Your task to perform on an android device: toggle javascript in the chrome app Image 0: 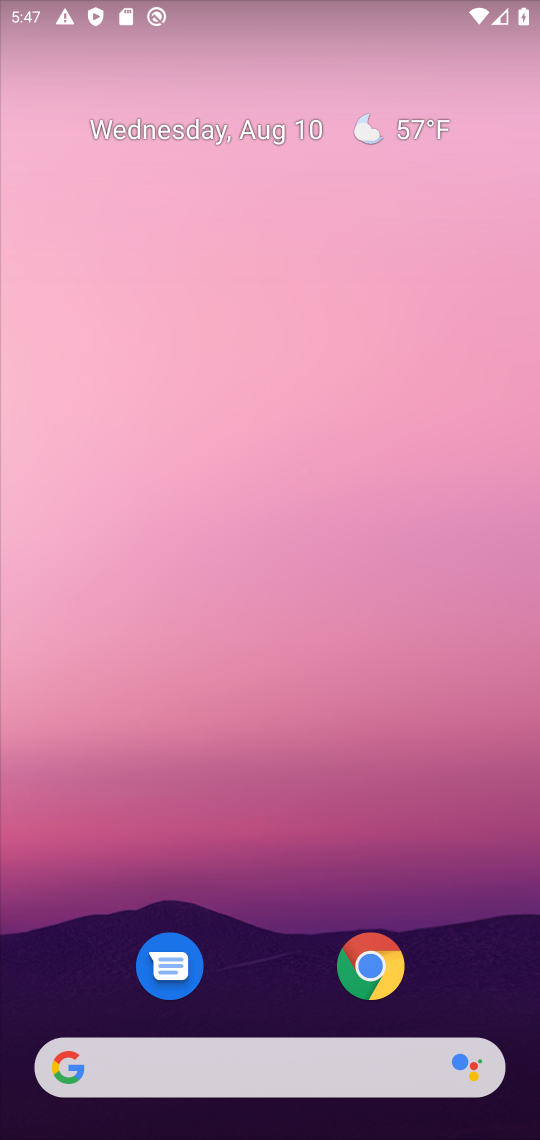
Step 0: press home button
Your task to perform on an android device: toggle javascript in the chrome app Image 1: 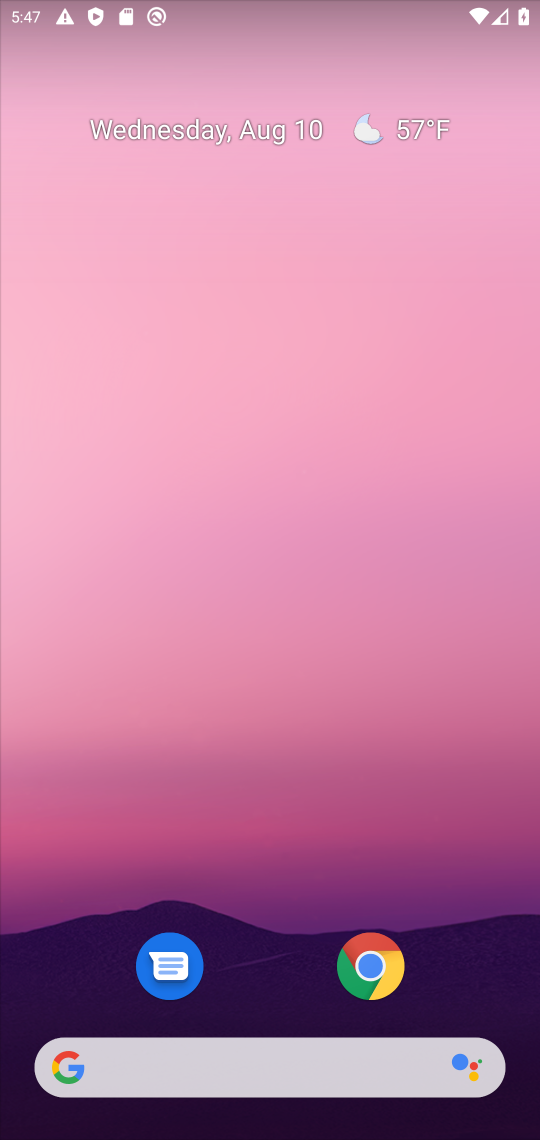
Step 1: click (378, 968)
Your task to perform on an android device: toggle javascript in the chrome app Image 2: 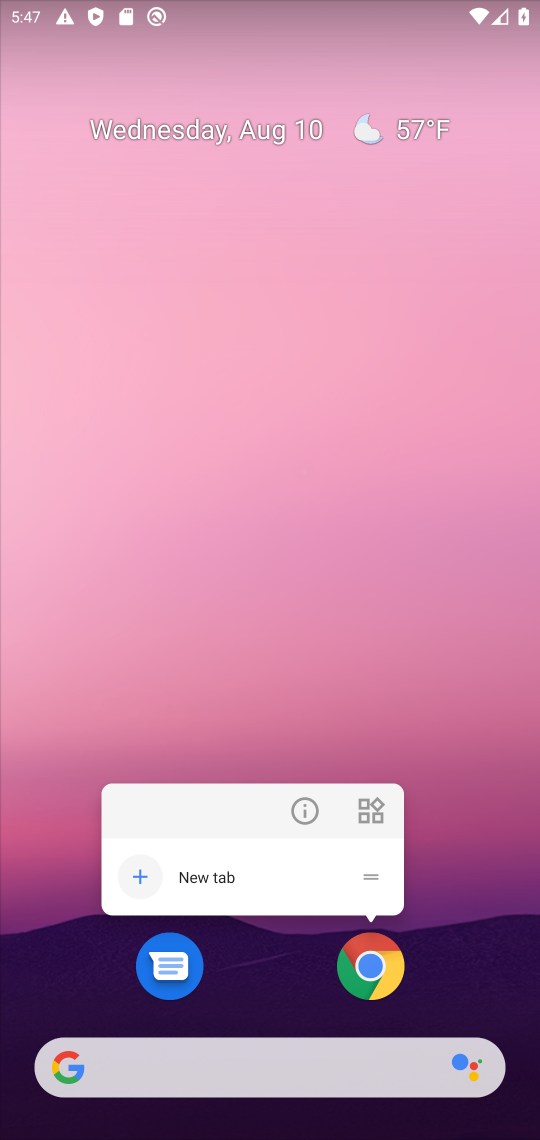
Step 2: click (365, 974)
Your task to perform on an android device: toggle javascript in the chrome app Image 3: 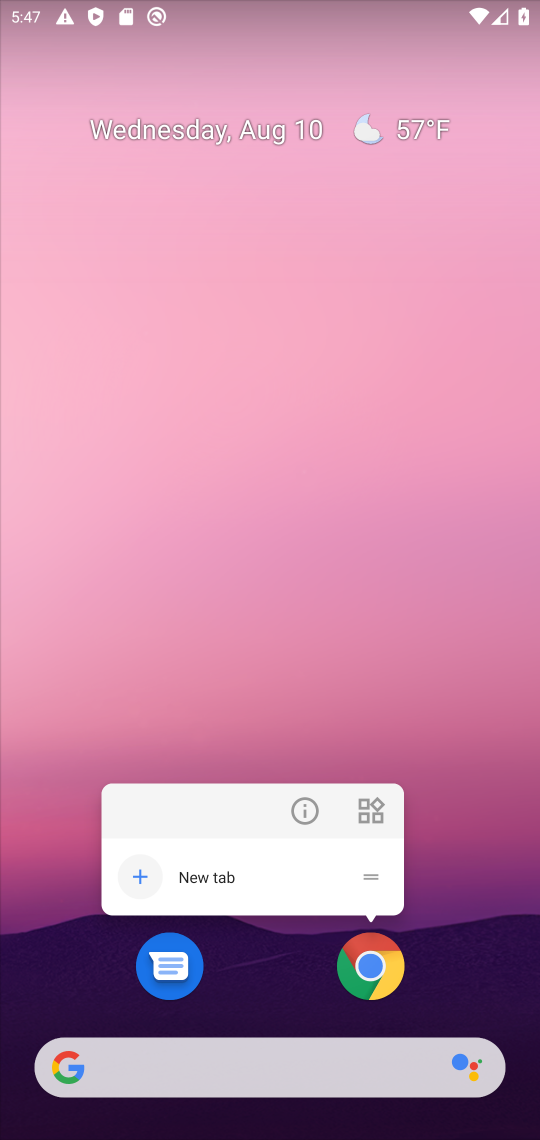
Step 3: click (361, 972)
Your task to perform on an android device: toggle javascript in the chrome app Image 4: 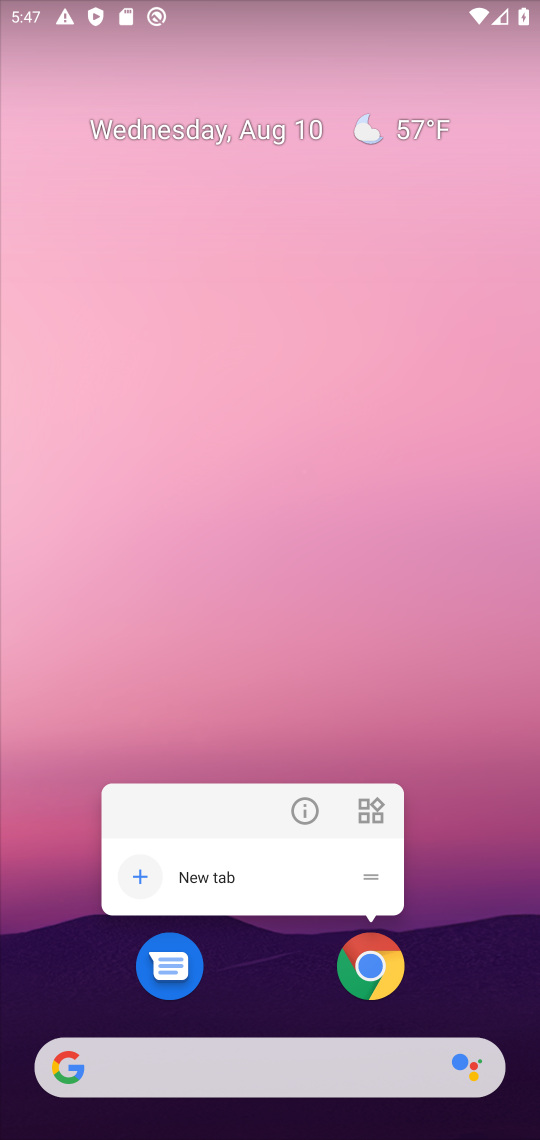
Step 4: click (379, 982)
Your task to perform on an android device: toggle javascript in the chrome app Image 5: 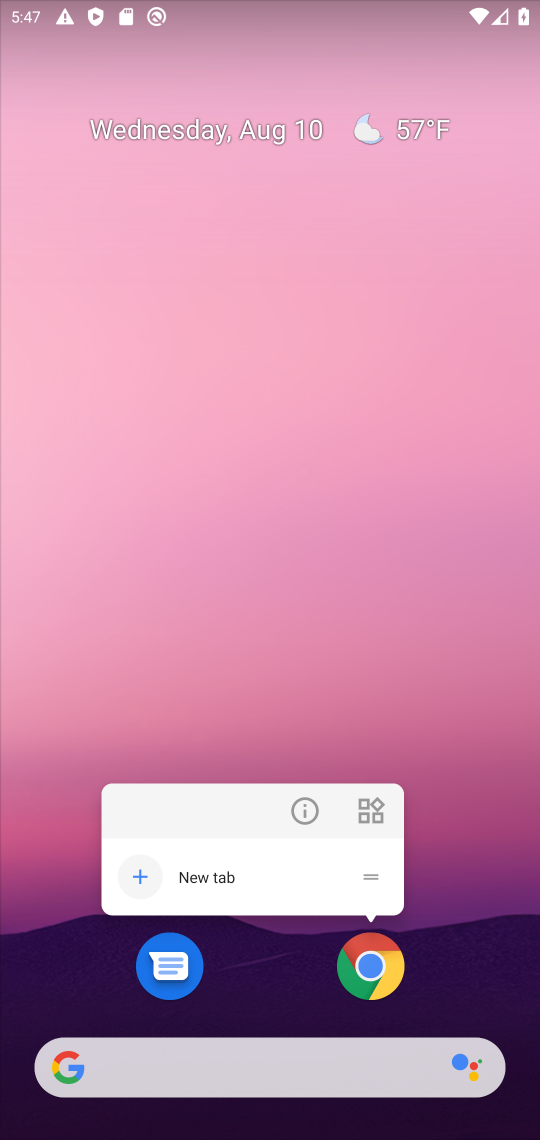
Step 5: click (372, 964)
Your task to perform on an android device: toggle javascript in the chrome app Image 6: 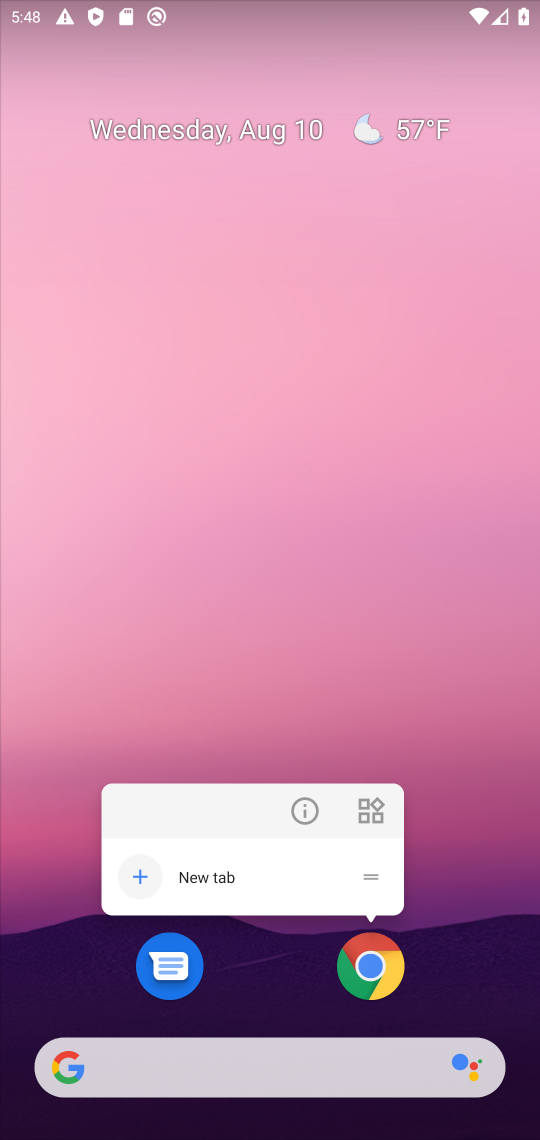
Step 6: click (372, 964)
Your task to perform on an android device: toggle javascript in the chrome app Image 7: 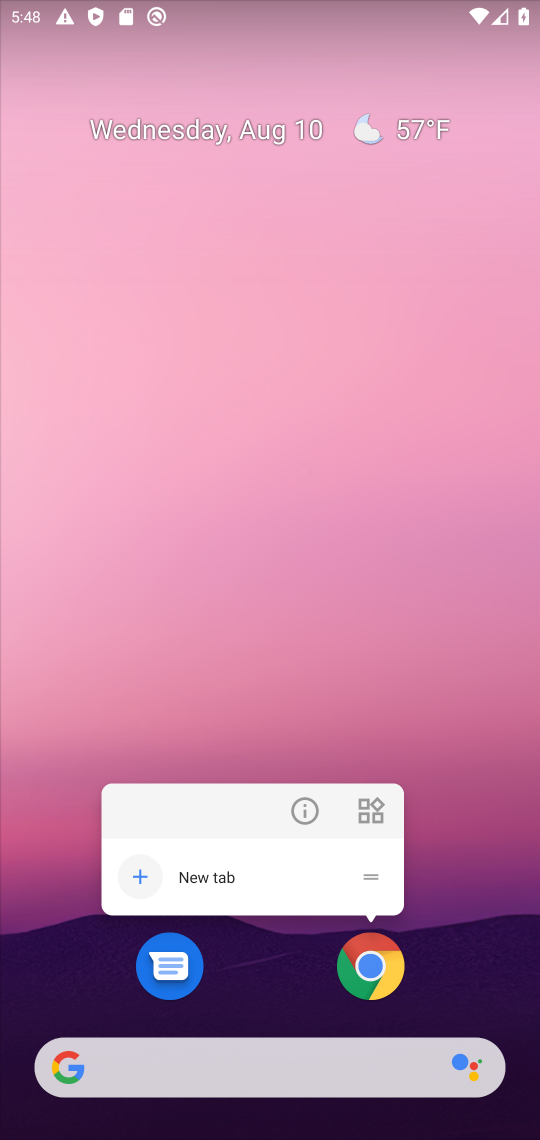
Step 7: click (372, 964)
Your task to perform on an android device: toggle javascript in the chrome app Image 8: 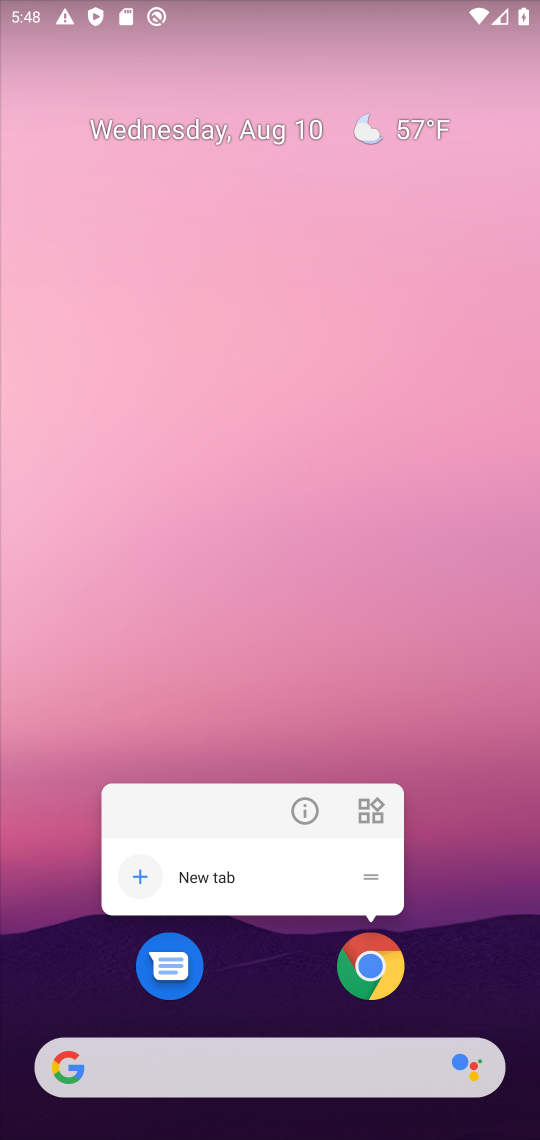
Step 8: click (383, 962)
Your task to perform on an android device: toggle javascript in the chrome app Image 9: 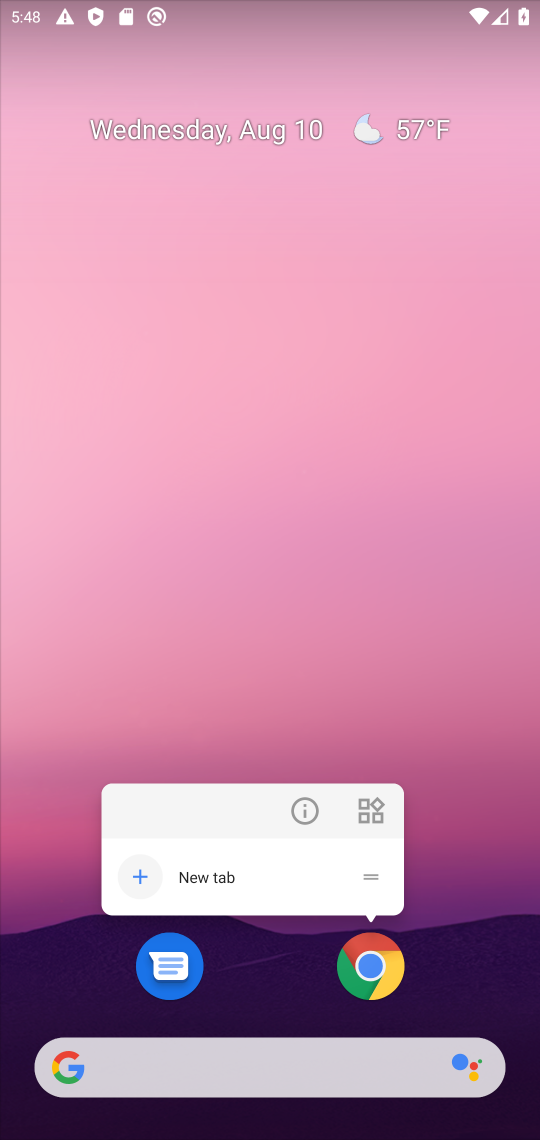
Step 9: click (373, 968)
Your task to perform on an android device: toggle javascript in the chrome app Image 10: 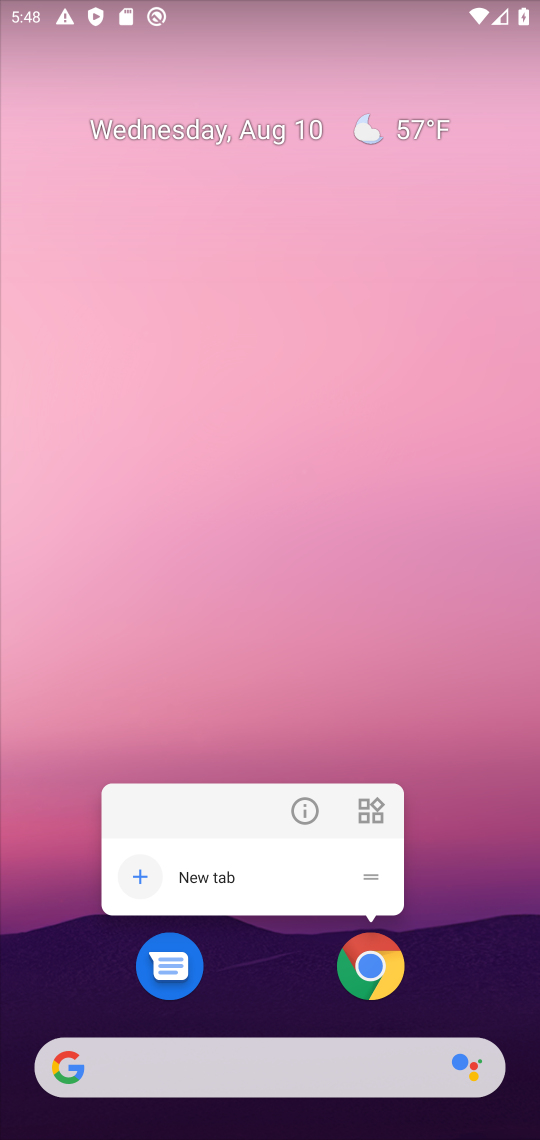
Step 10: click (380, 969)
Your task to perform on an android device: toggle javascript in the chrome app Image 11: 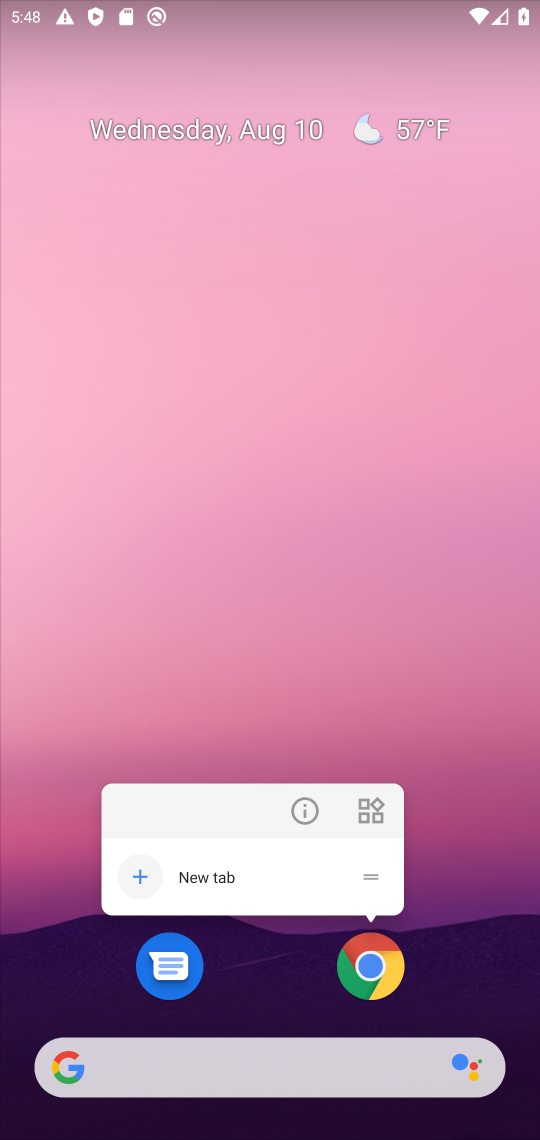
Step 11: click (382, 969)
Your task to perform on an android device: toggle javascript in the chrome app Image 12: 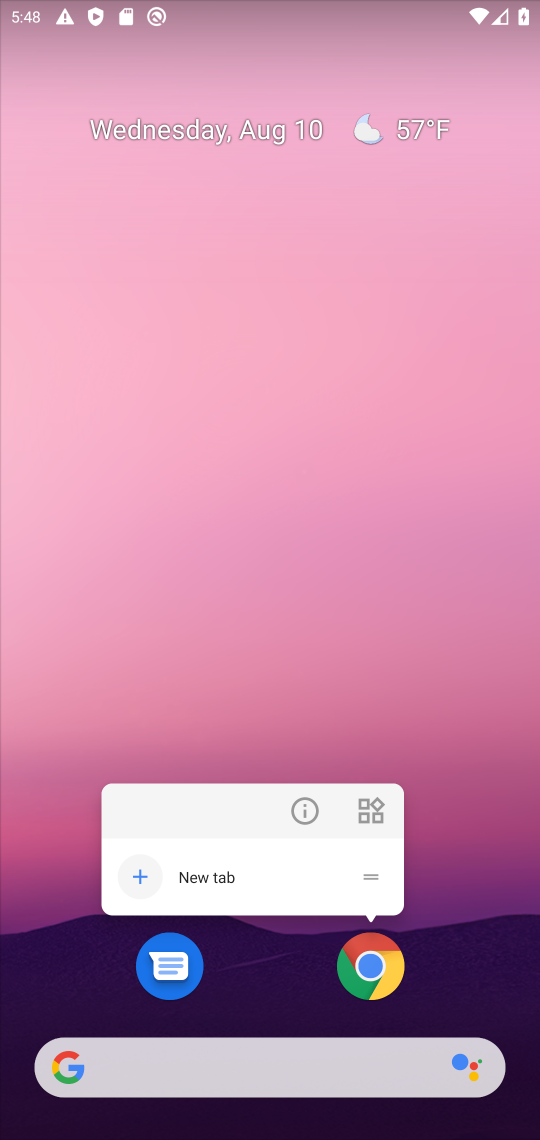
Step 12: click (386, 956)
Your task to perform on an android device: toggle javascript in the chrome app Image 13: 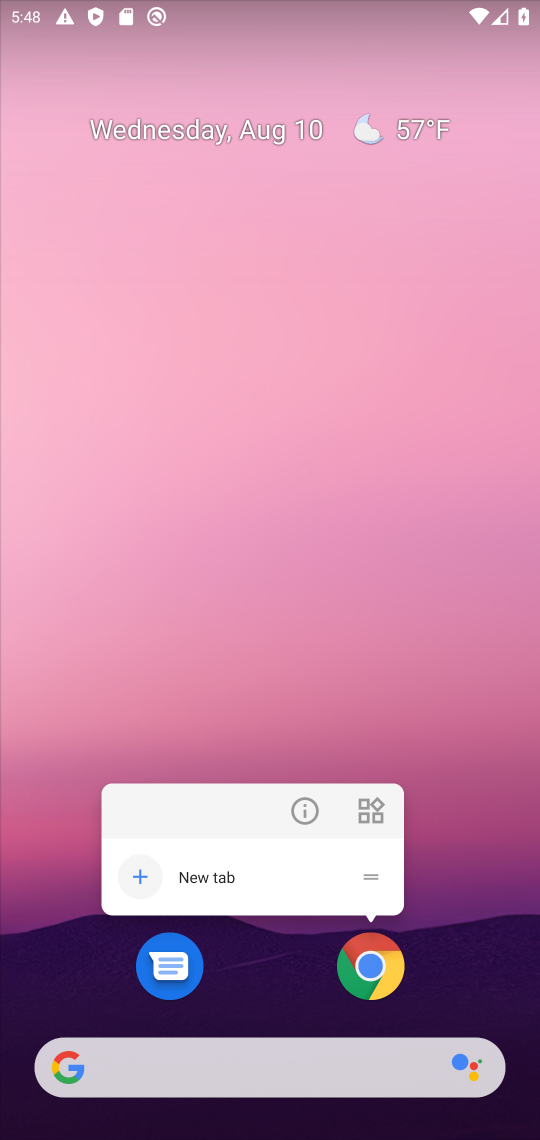
Step 13: click (370, 976)
Your task to perform on an android device: toggle javascript in the chrome app Image 14: 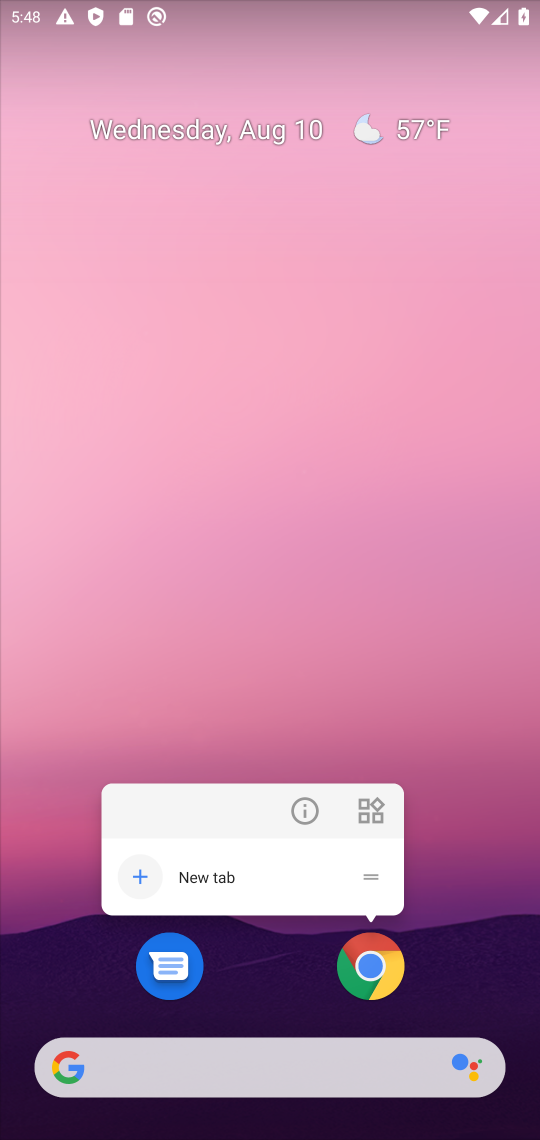
Step 14: click (387, 969)
Your task to perform on an android device: toggle javascript in the chrome app Image 15: 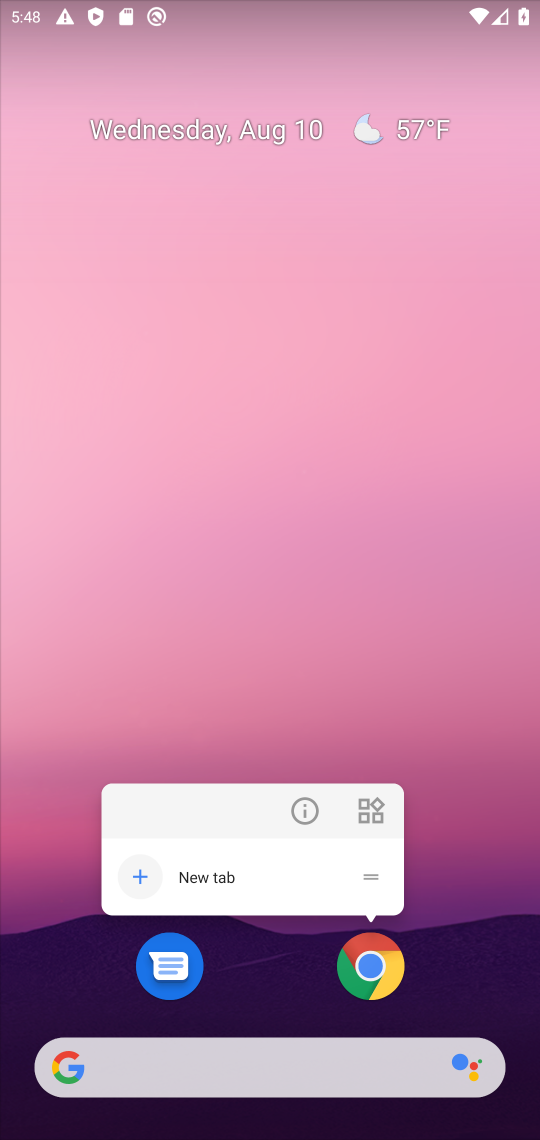
Step 15: click (389, 966)
Your task to perform on an android device: toggle javascript in the chrome app Image 16: 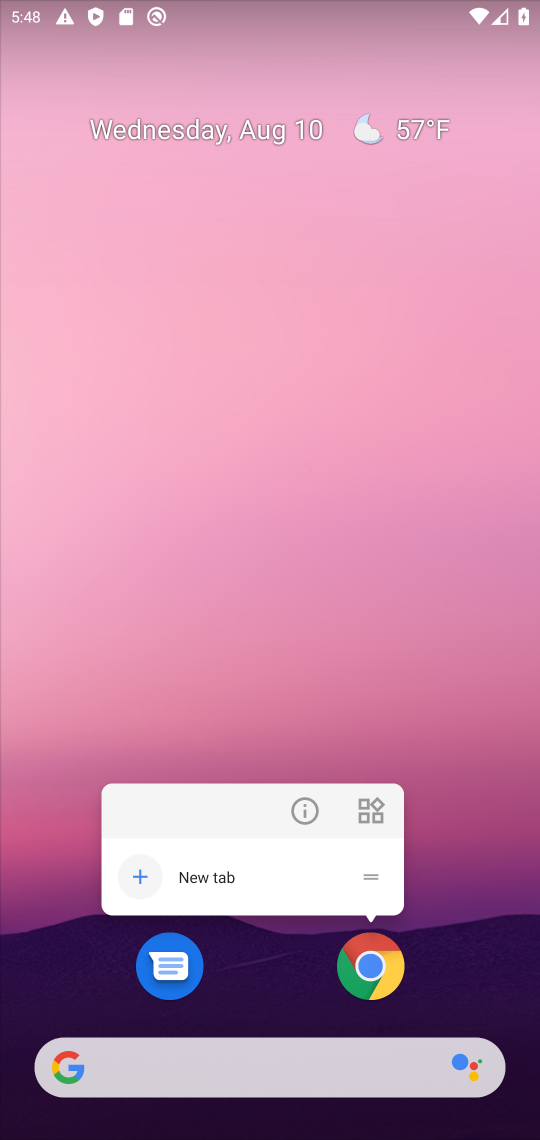
Step 16: click (376, 970)
Your task to perform on an android device: toggle javascript in the chrome app Image 17: 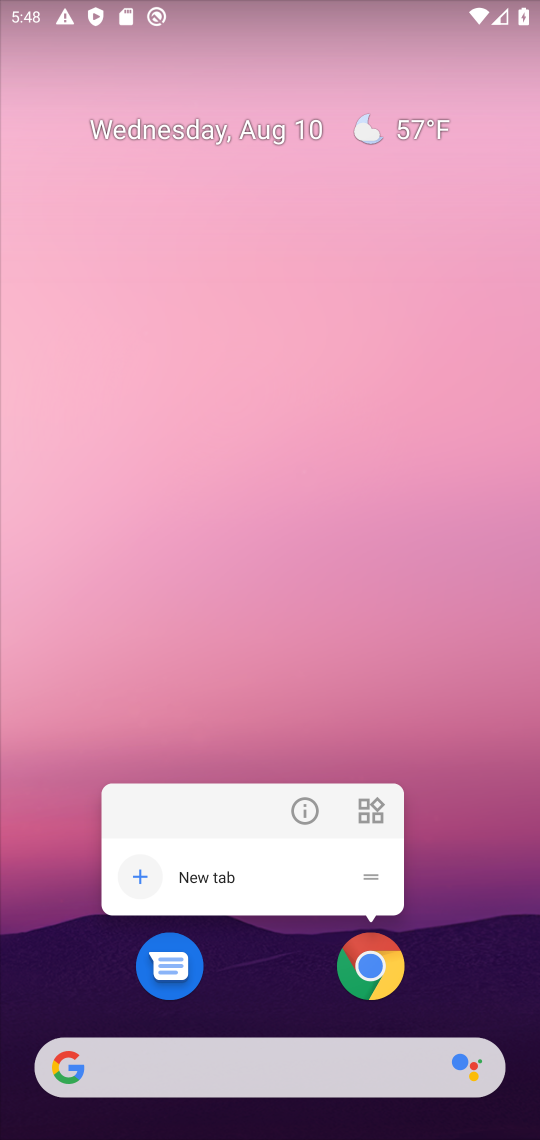
Step 17: click (375, 965)
Your task to perform on an android device: toggle javascript in the chrome app Image 18: 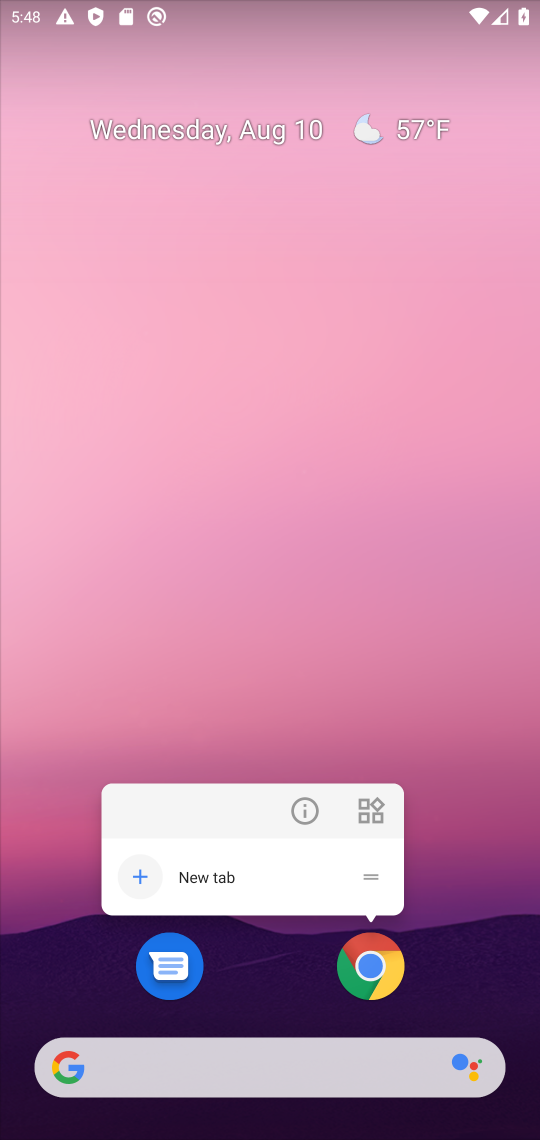
Step 18: click (375, 964)
Your task to perform on an android device: toggle javascript in the chrome app Image 19: 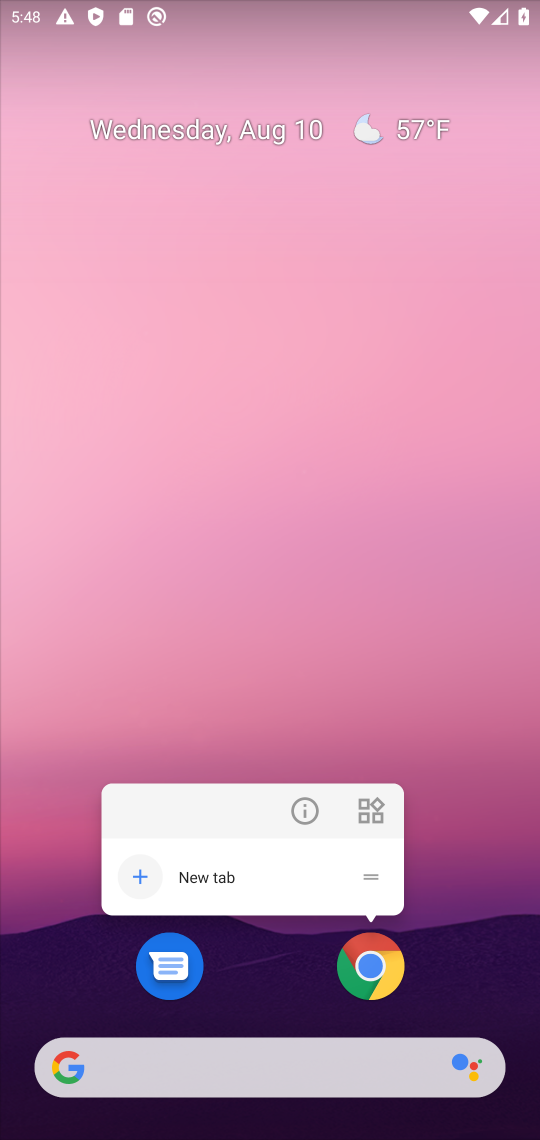
Step 19: click (371, 971)
Your task to perform on an android device: toggle javascript in the chrome app Image 20: 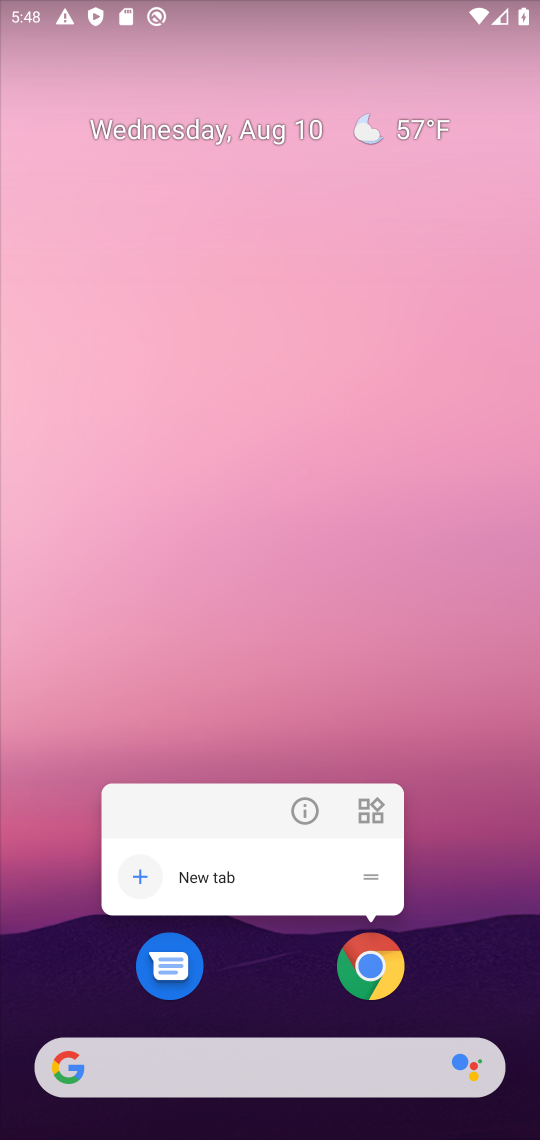
Step 20: click (371, 971)
Your task to perform on an android device: toggle javascript in the chrome app Image 21: 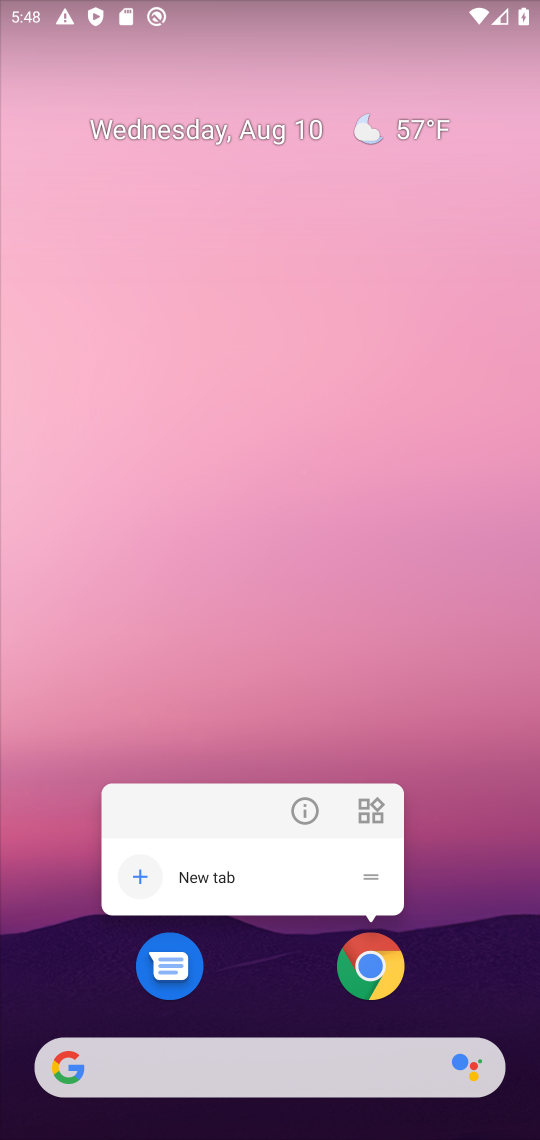
Step 21: click (371, 970)
Your task to perform on an android device: toggle javascript in the chrome app Image 22: 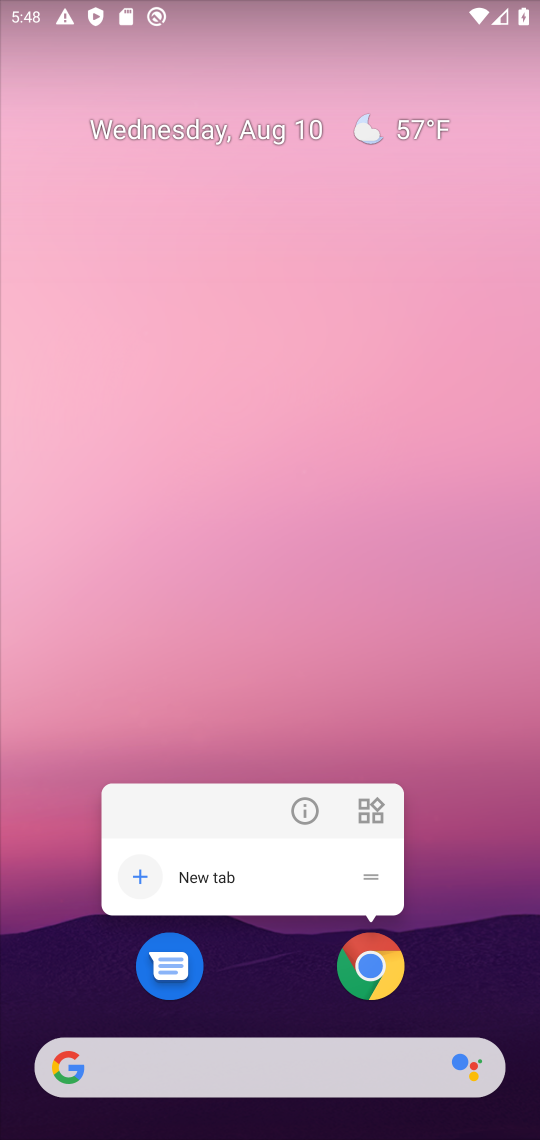
Step 22: click (371, 970)
Your task to perform on an android device: toggle javascript in the chrome app Image 23: 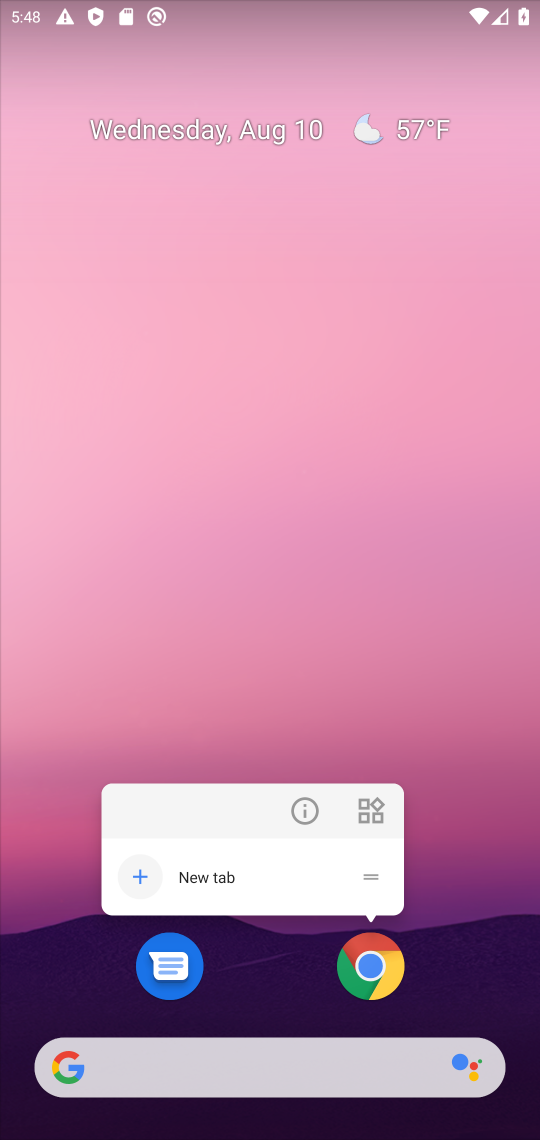
Step 23: click (371, 969)
Your task to perform on an android device: toggle javascript in the chrome app Image 24: 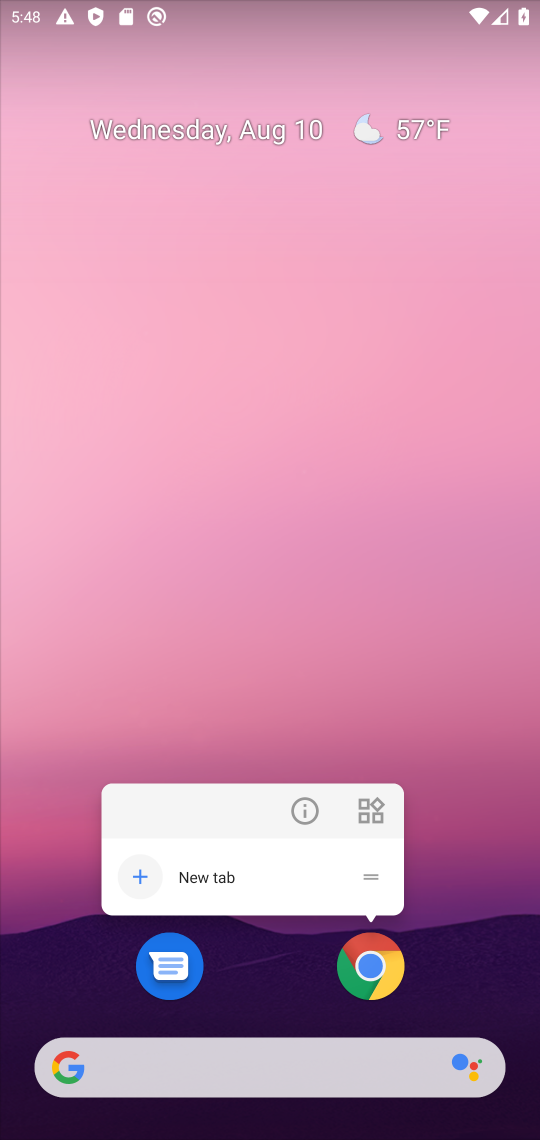
Step 24: click (374, 972)
Your task to perform on an android device: toggle javascript in the chrome app Image 25: 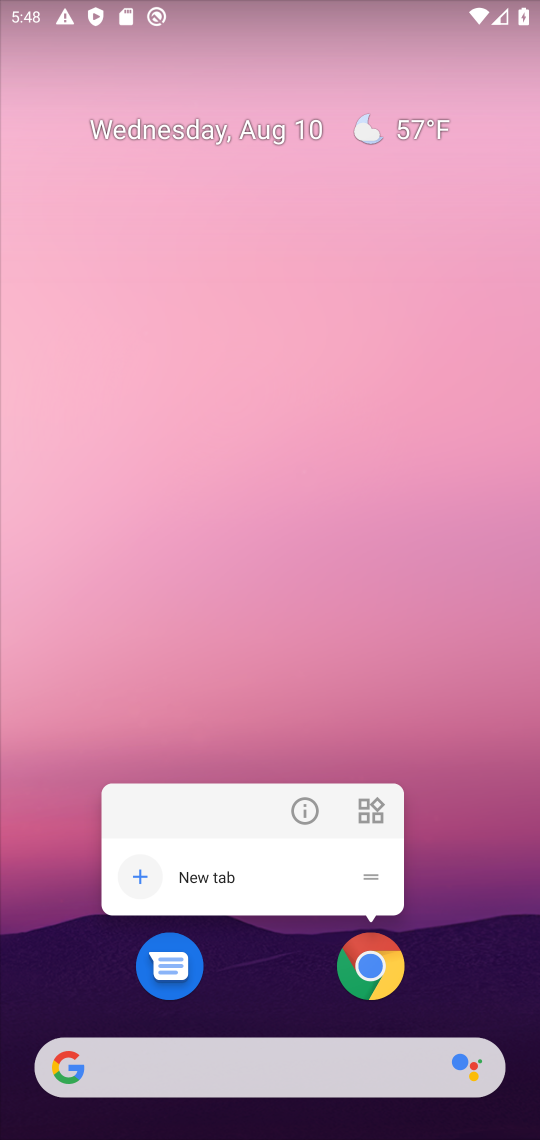
Step 25: click (375, 973)
Your task to perform on an android device: toggle javascript in the chrome app Image 26: 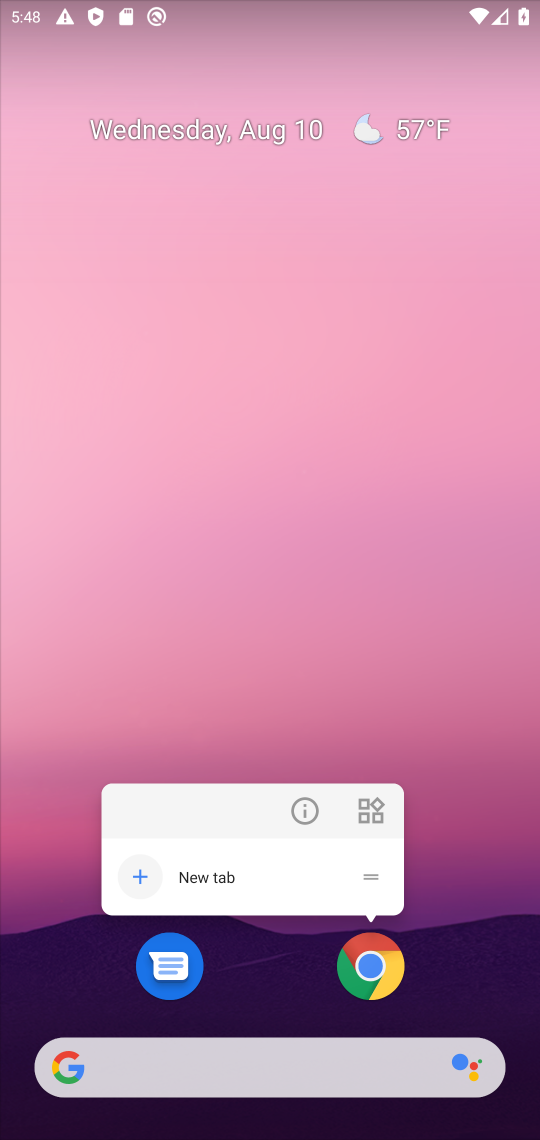
Step 26: click (360, 984)
Your task to perform on an android device: toggle javascript in the chrome app Image 27: 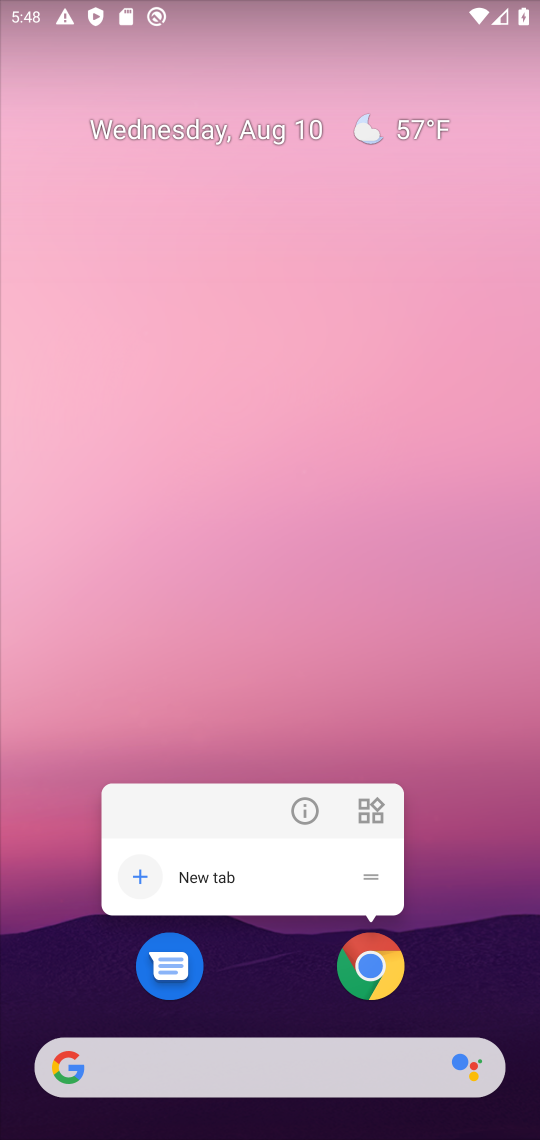
Step 27: click (369, 968)
Your task to perform on an android device: toggle javascript in the chrome app Image 28: 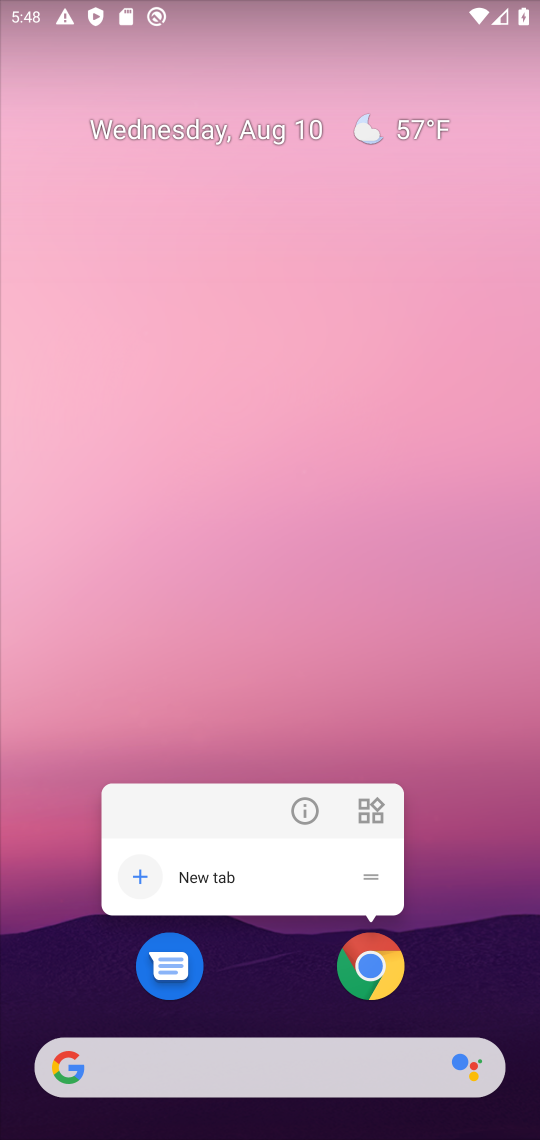
Step 28: click (369, 968)
Your task to perform on an android device: toggle javascript in the chrome app Image 29: 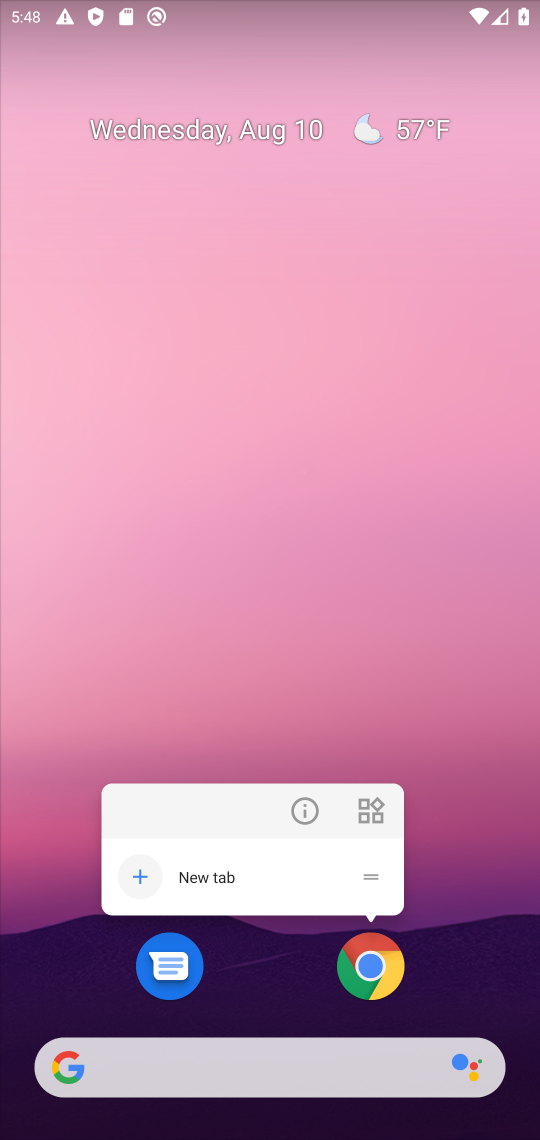
Step 29: click (373, 955)
Your task to perform on an android device: toggle javascript in the chrome app Image 30: 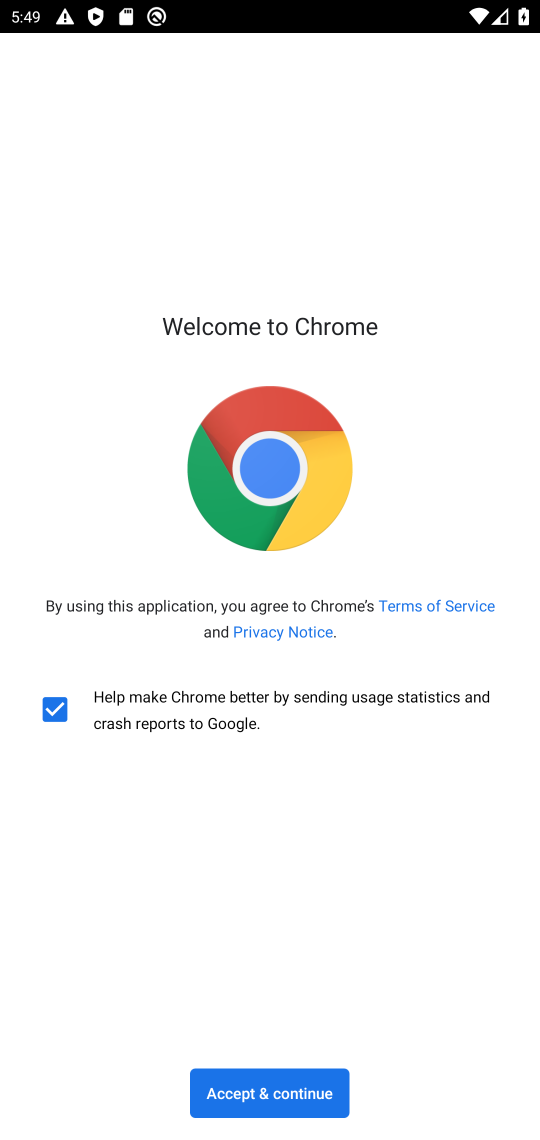
Step 30: click (241, 1080)
Your task to perform on an android device: toggle javascript in the chrome app Image 31: 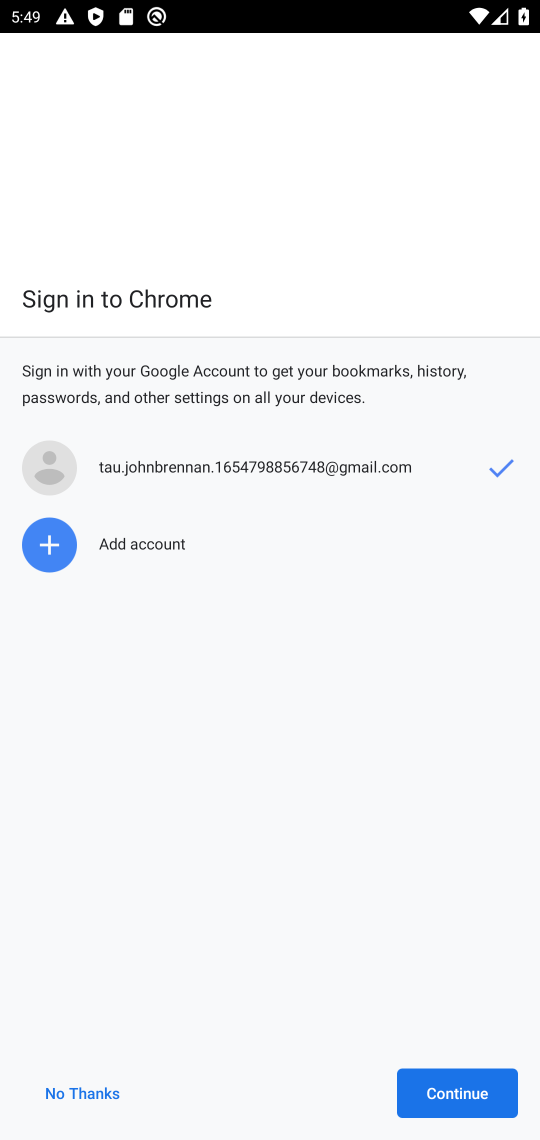
Step 31: click (430, 1093)
Your task to perform on an android device: toggle javascript in the chrome app Image 32: 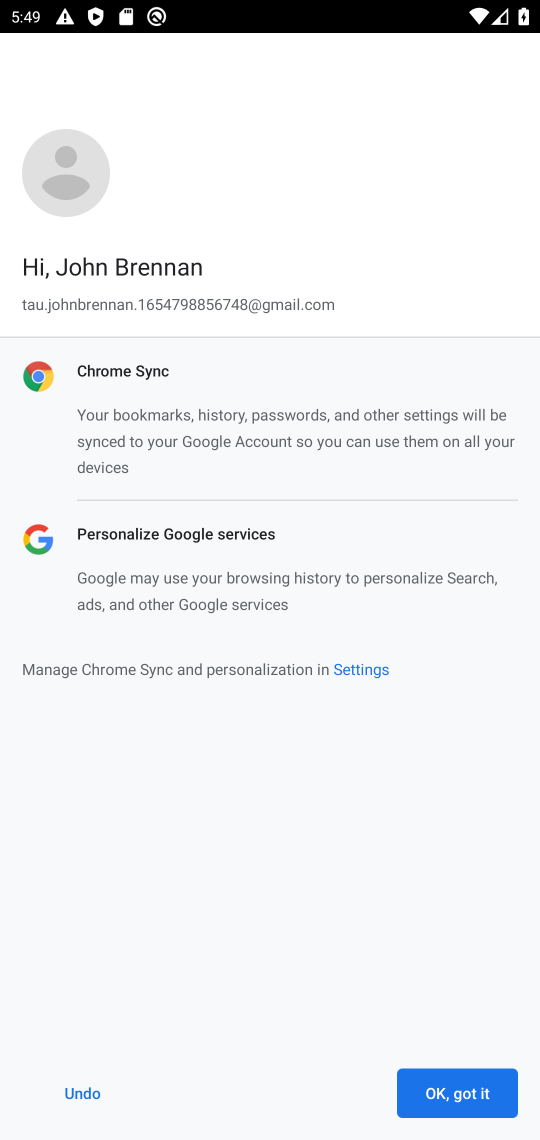
Step 32: click (433, 1096)
Your task to perform on an android device: toggle javascript in the chrome app Image 33: 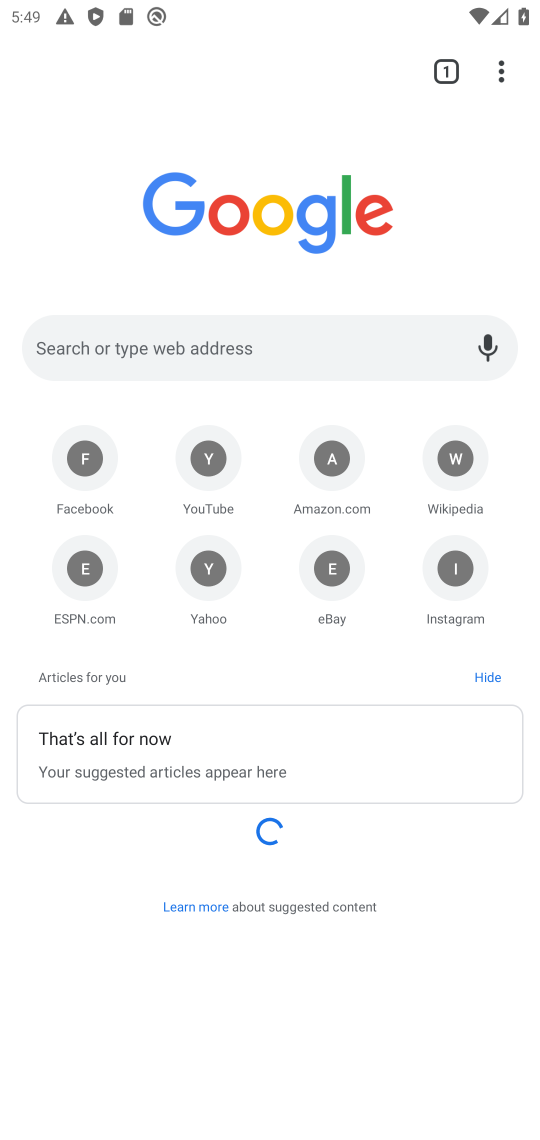
Step 33: drag from (505, 66) to (258, 589)
Your task to perform on an android device: toggle javascript in the chrome app Image 34: 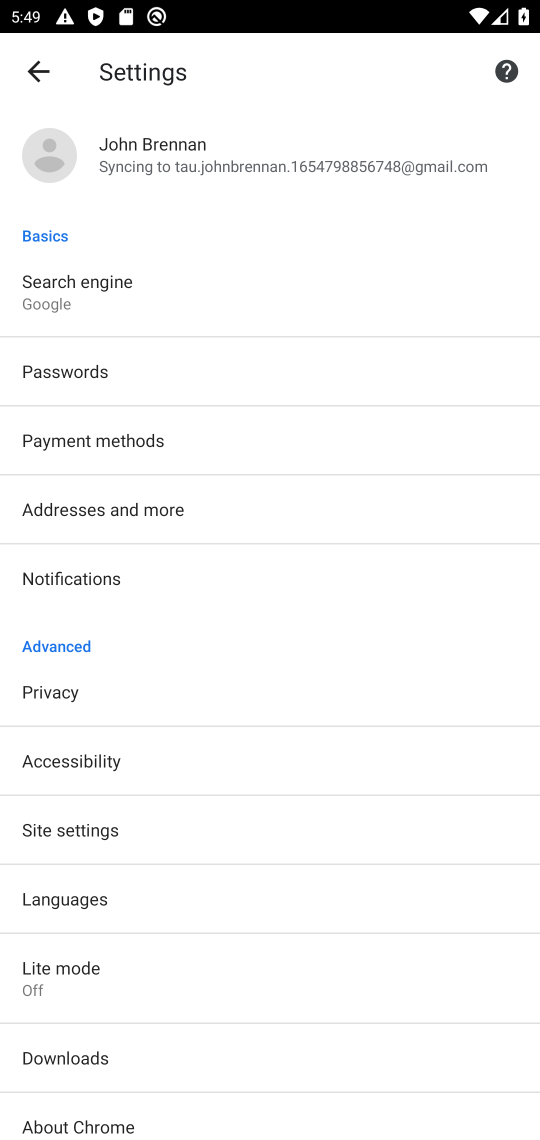
Step 34: click (47, 831)
Your task to perform on an android device: toggle javascript in the chrome app Image 35: 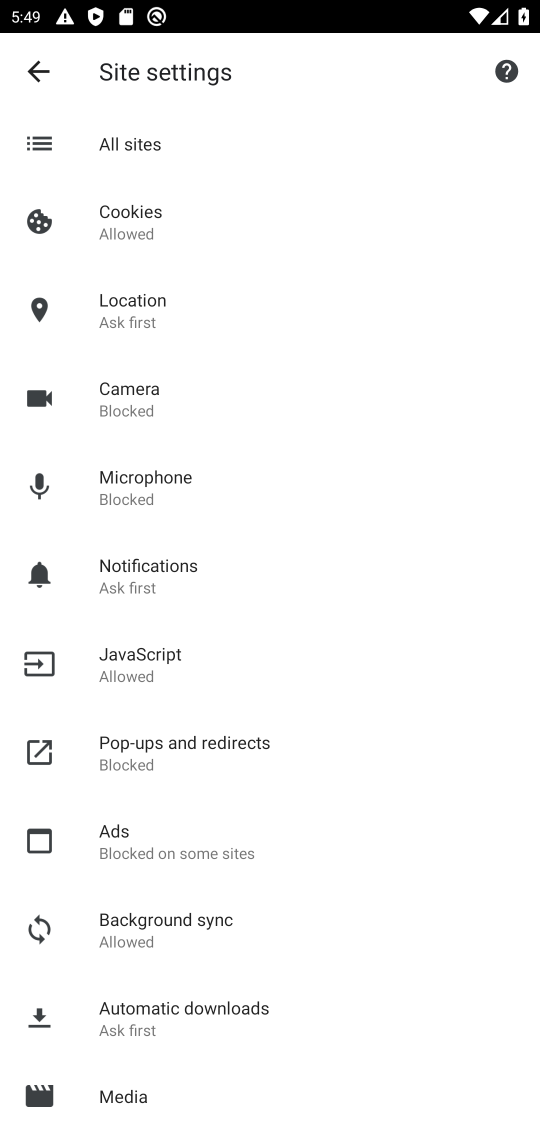
Step 35: click (141, 678)
Your task to perform on an android device: toggle javascript in the chrome app Image 36: 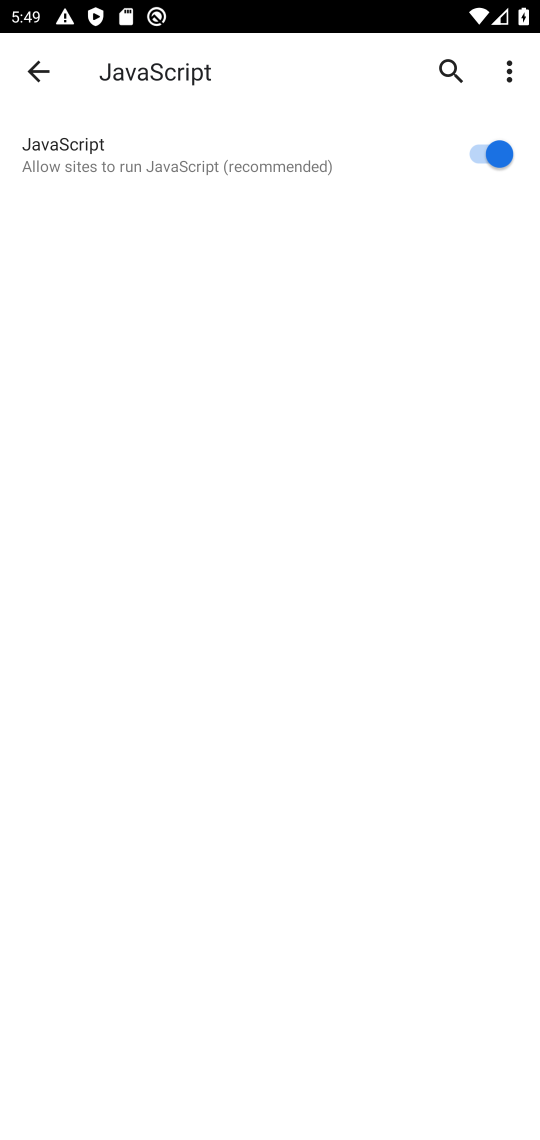
Step 36: click (490, 162)
Your task to perform on an android device: toggle javascript in the chrome app Image 37: 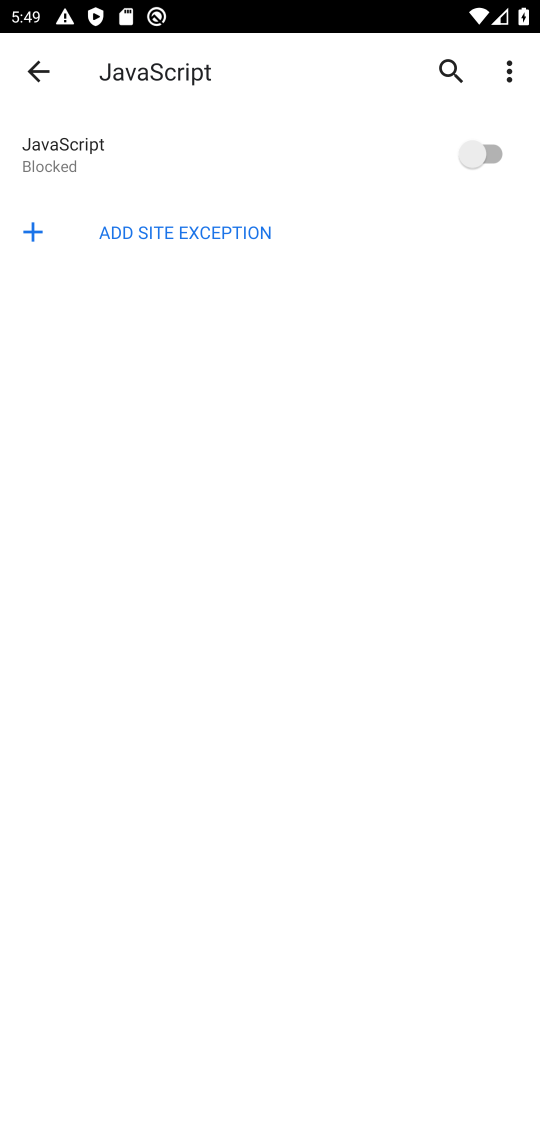
Step 37: task complete